Your task to perform on an android device: see creations saved in the google photos Image 0: 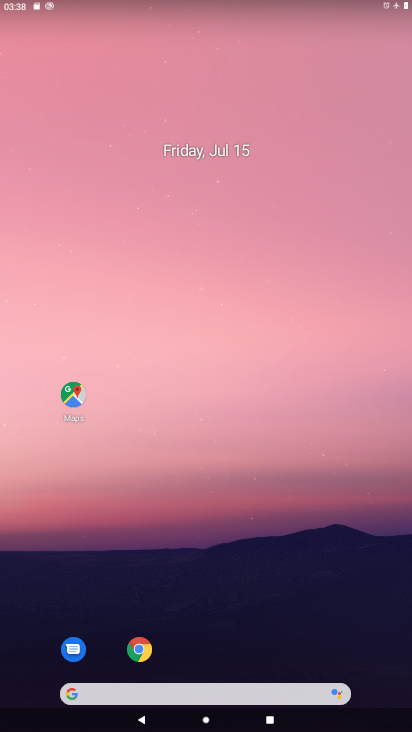
Step 0: drag from (379, 656) to (361, 157)
Your task to perform on an android device: see creations saved in the google photos Image 1: 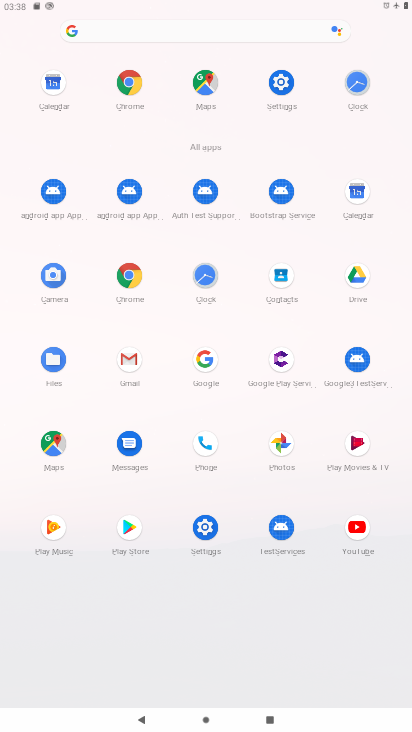
Step 1: click (278, 442)
Your task to perform on an android device: see creations saved in the google photos Image 2: 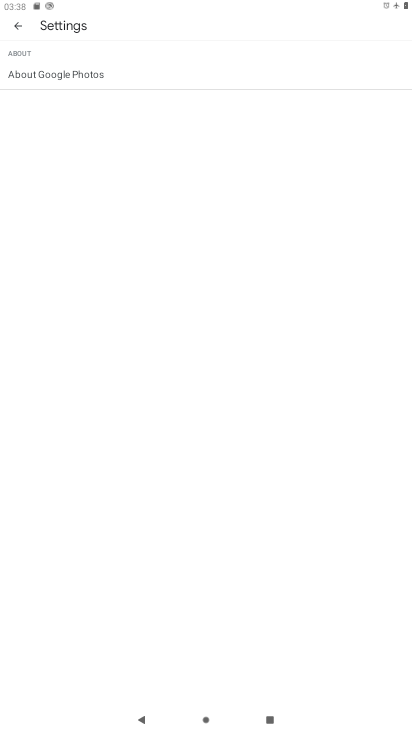
Step 2: press back button
Your task to perform on an android device: see creations saved in the google photos Image 3: 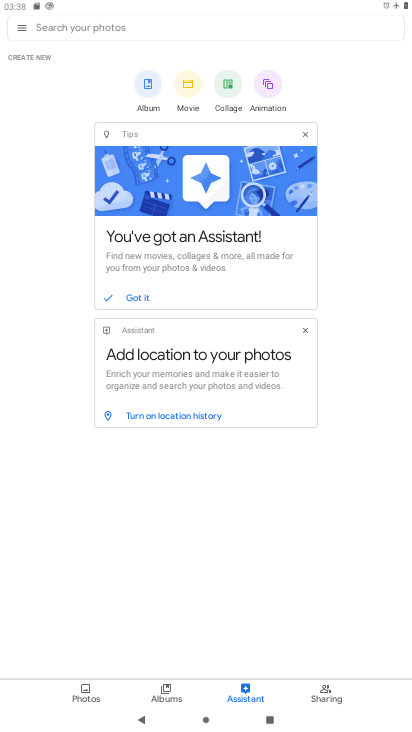
Step 3: click (80, 690)
Your task to perform on an android device: see creations saved in the google photos Image 4: 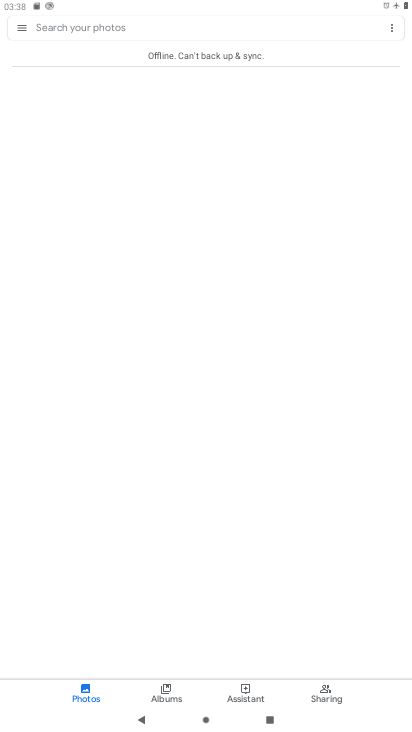
Step 4: click (181, 684)
Your task to perform on an android device: see creations saved in the google photos Image 5: 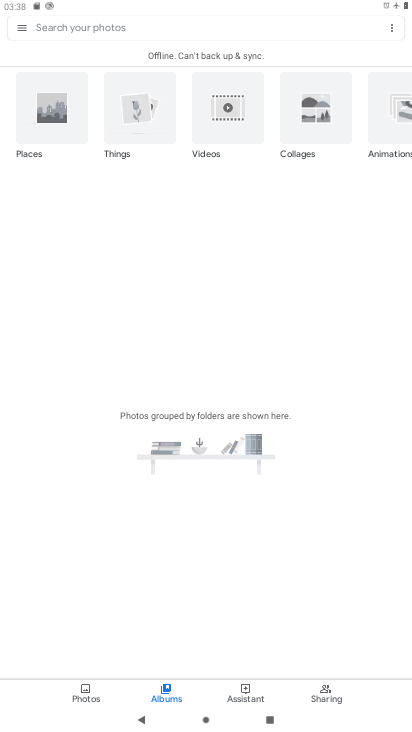
Step 5: task complete